Your task to perform on an android device: change your default location settings in chrome Image 0: 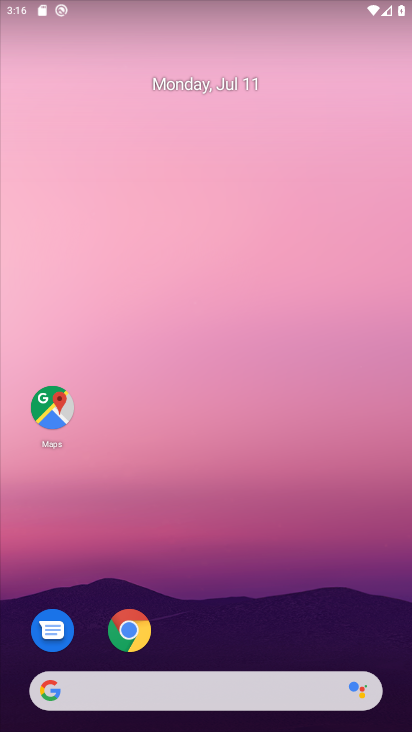
Step 0: click (140, 651)
Your task to perform on an android device: change your default location settings in chrome Image 1: 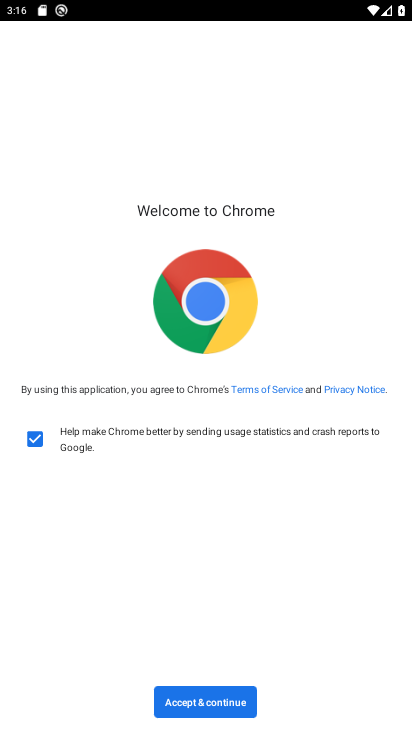
Step 1: click (211, 693)
Your task to perform on an android device: change your default location settings in chrome Image 2: 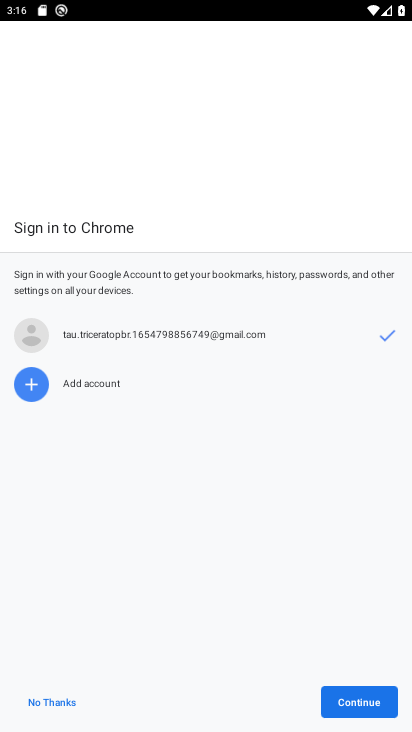
Step 2: click (362, 711)
Your task to perform on an android device: change your default location settings in chrome Image 3: 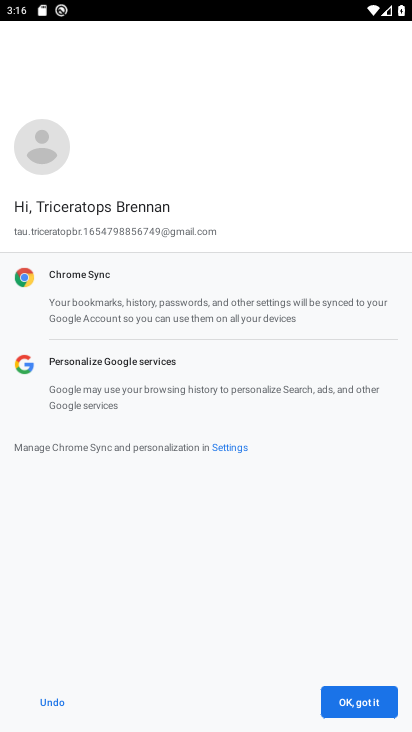
Step 3: click (347, 710)
Your task to perform on an android device: change your default location settings in chrome Image 4: 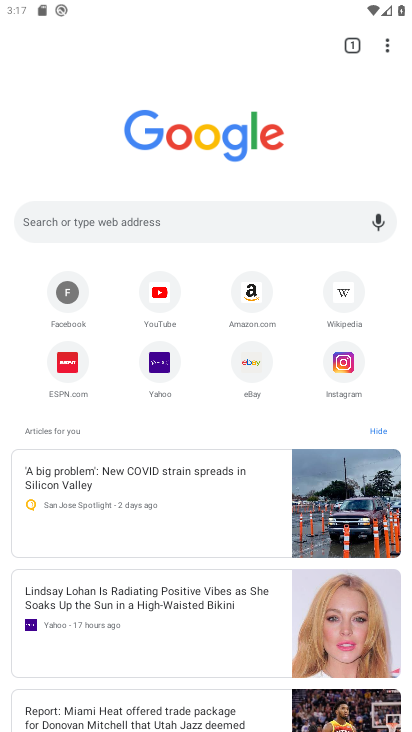
Step 4: click (386, 50)
Your task to perform on an android device: change your default location settings in chrome Image 5: 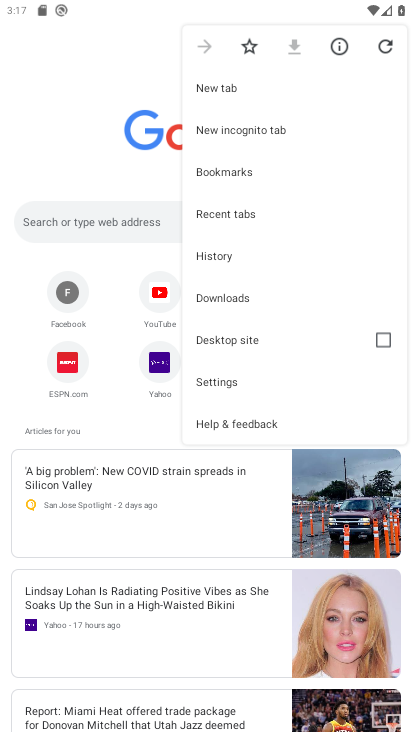
Step 5: click (274, 372)
Your task to perform on an android device: change your default location settings in chrome Image 6: 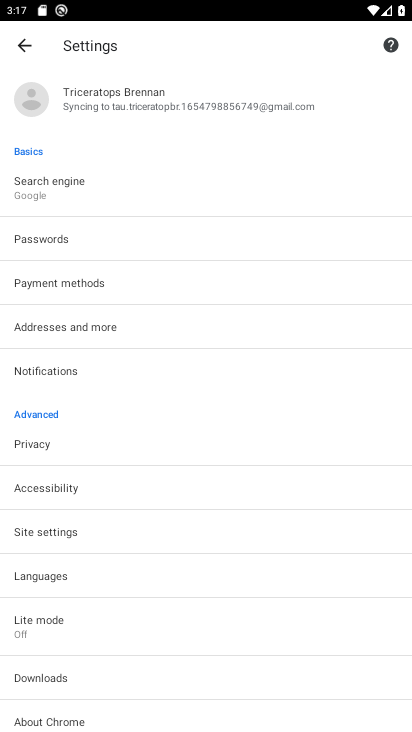
Step 6: click (122, 329)
Your task to perform on an android device: change your default location settings in chrome Image 7: 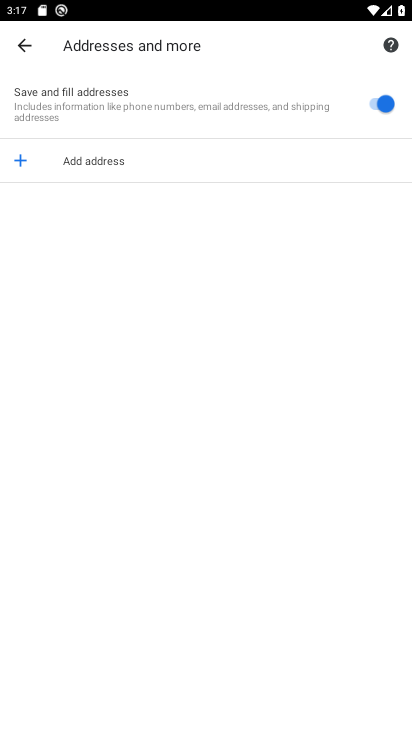
Step 7: task complete